Your task to perform on an android device: manage bookmarks in the chrome app Image 0: 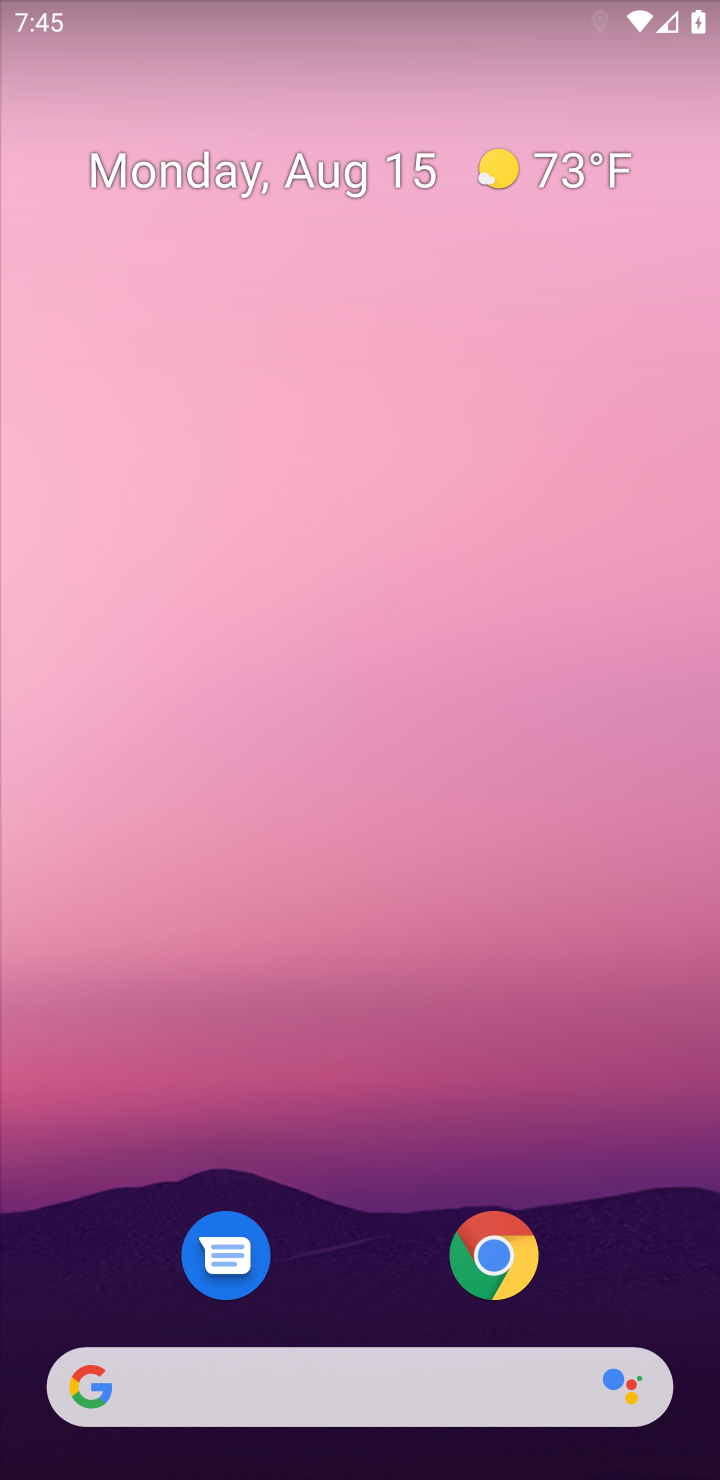
Step 0: drag from (366, 1291) to (392, 95)
Your task to perform on an android device: manage bookmarks in the chrome app Image 1: 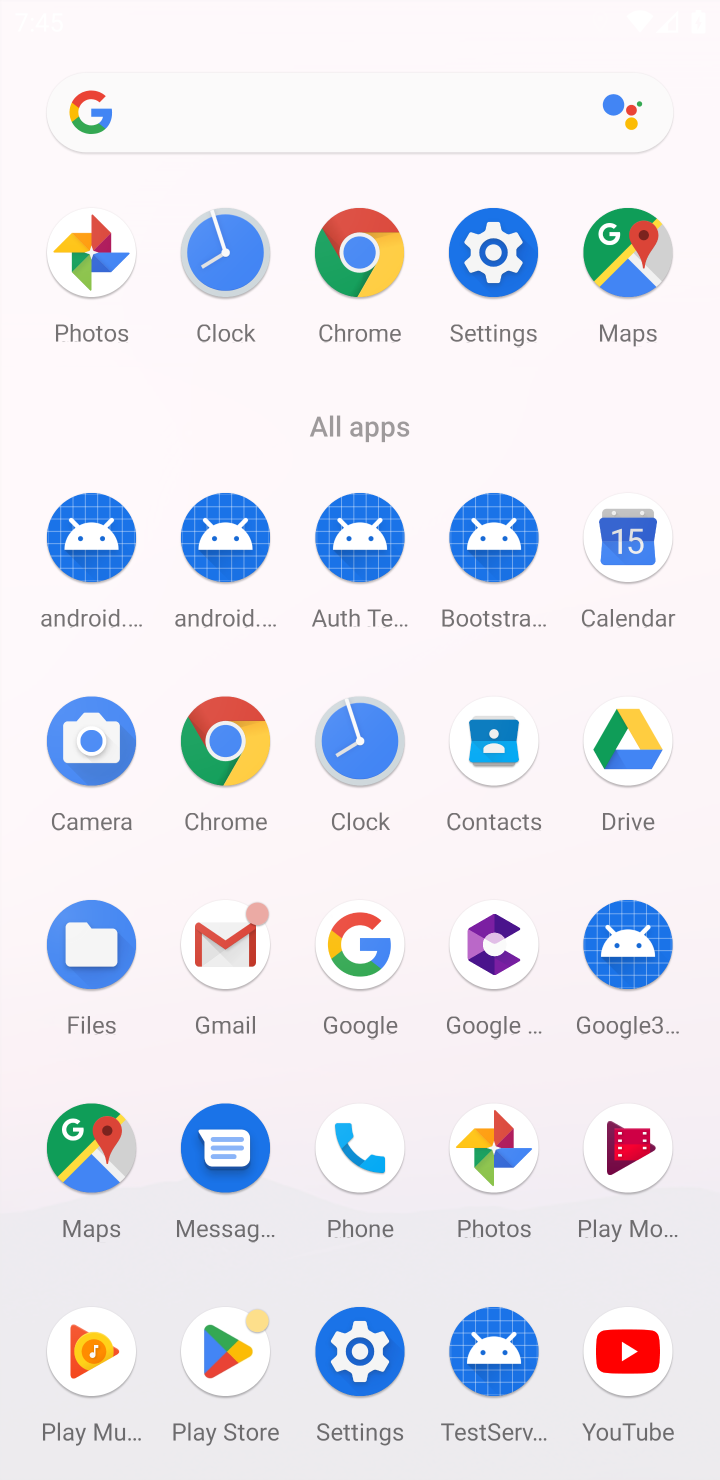
Step 1: click (360, 243)
Your task to perform on an android device: manage bookmarks in the chrome app Image 2: 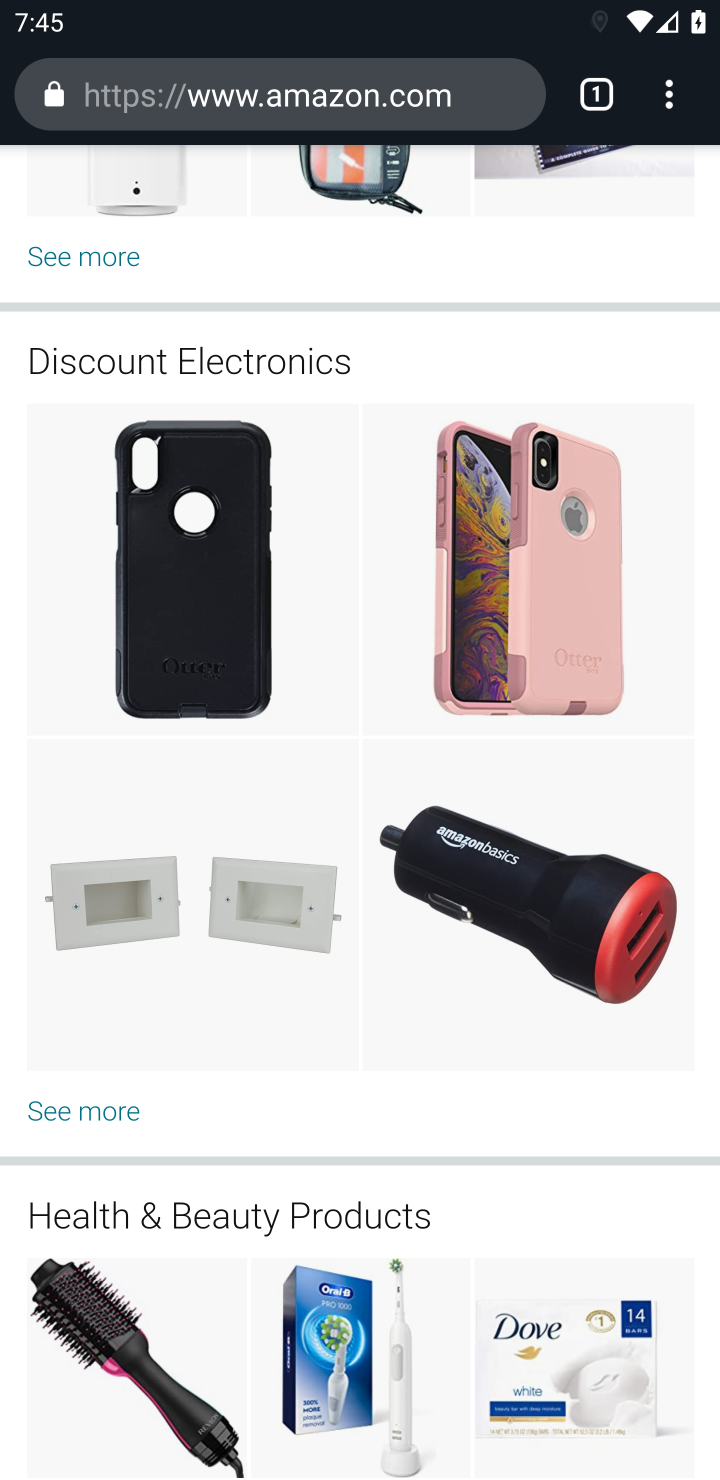
Step 2: click (664, 95)
Your task to perform on an android device: manage bookmarks in the chrome app Image 3: 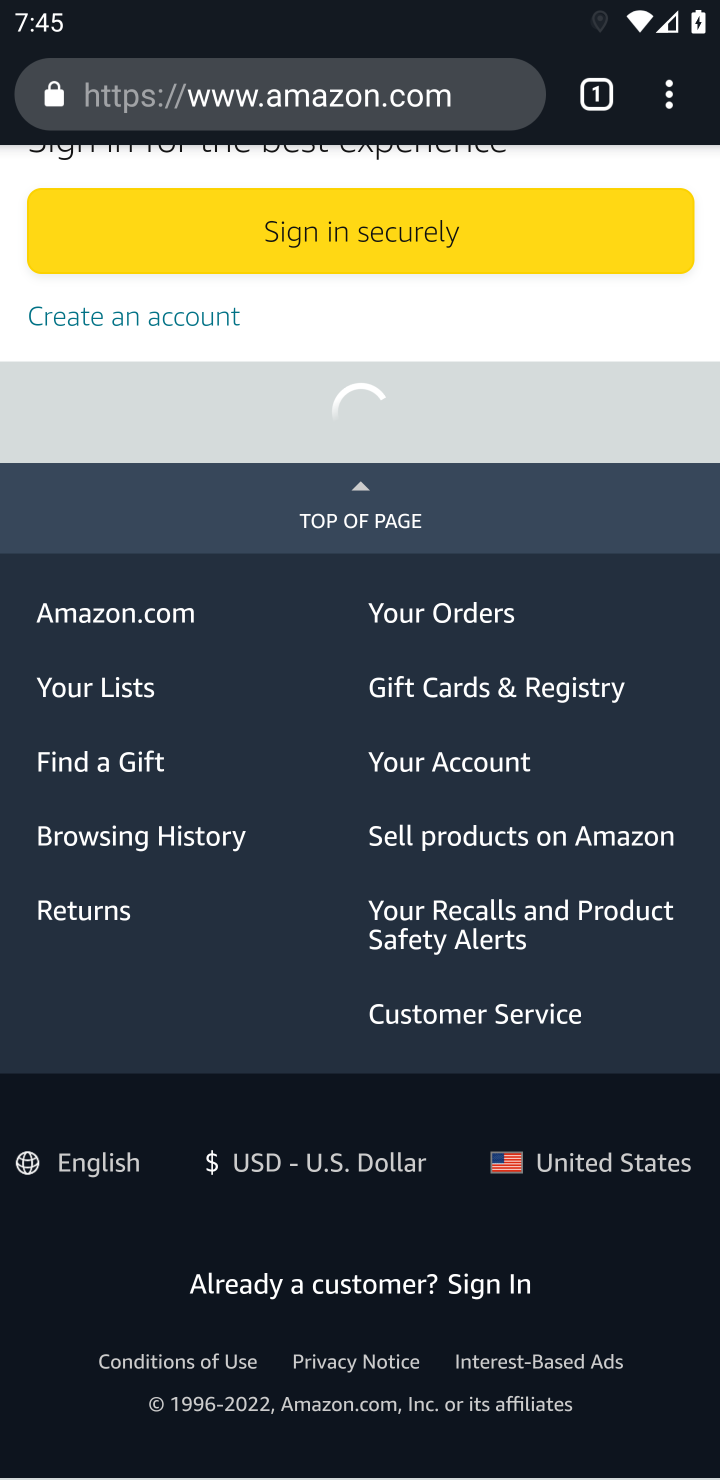
Step 3: click (664, 109)
Your task to perform on an android device: manage bookmarks in the chrome app Image 4: 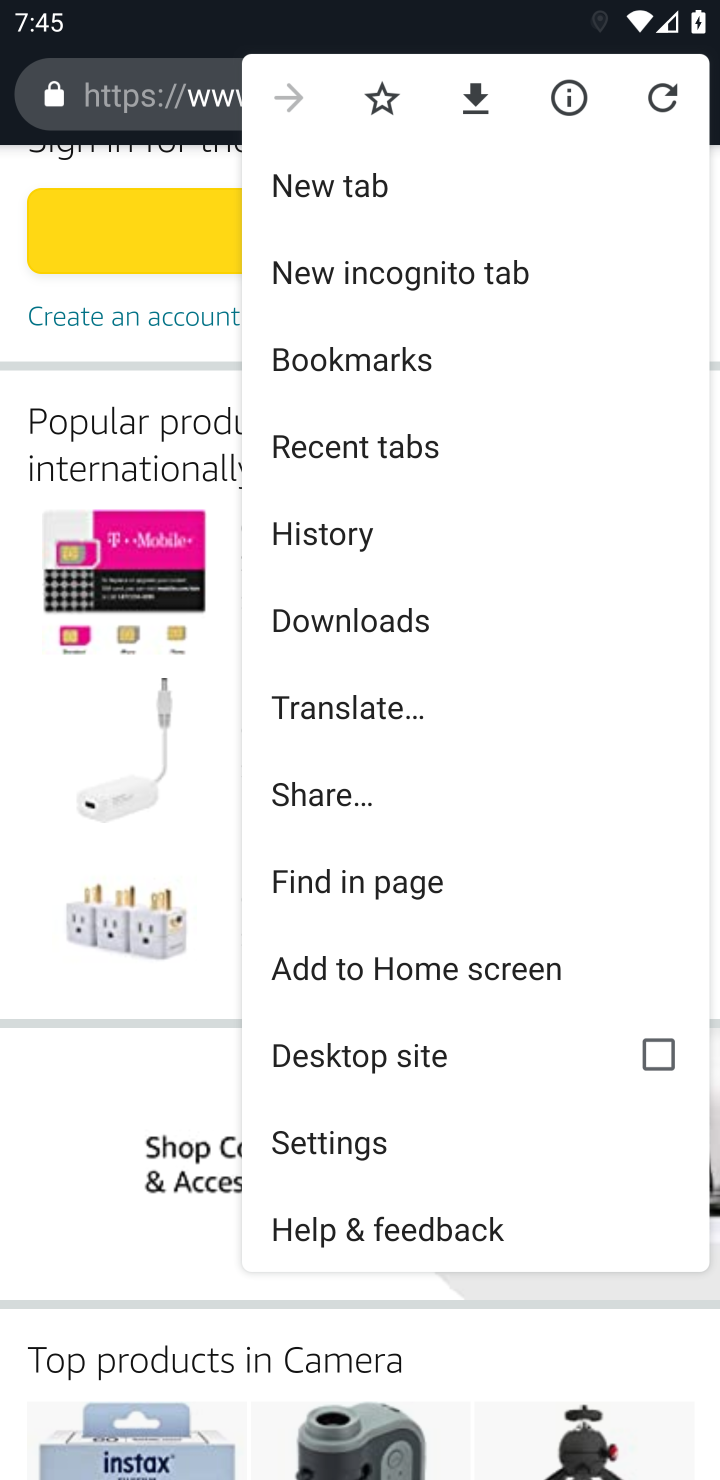
Step 4: click (458, 349)
Your task to perform on an android device: manage bookmarks in the chrome app Image 5: 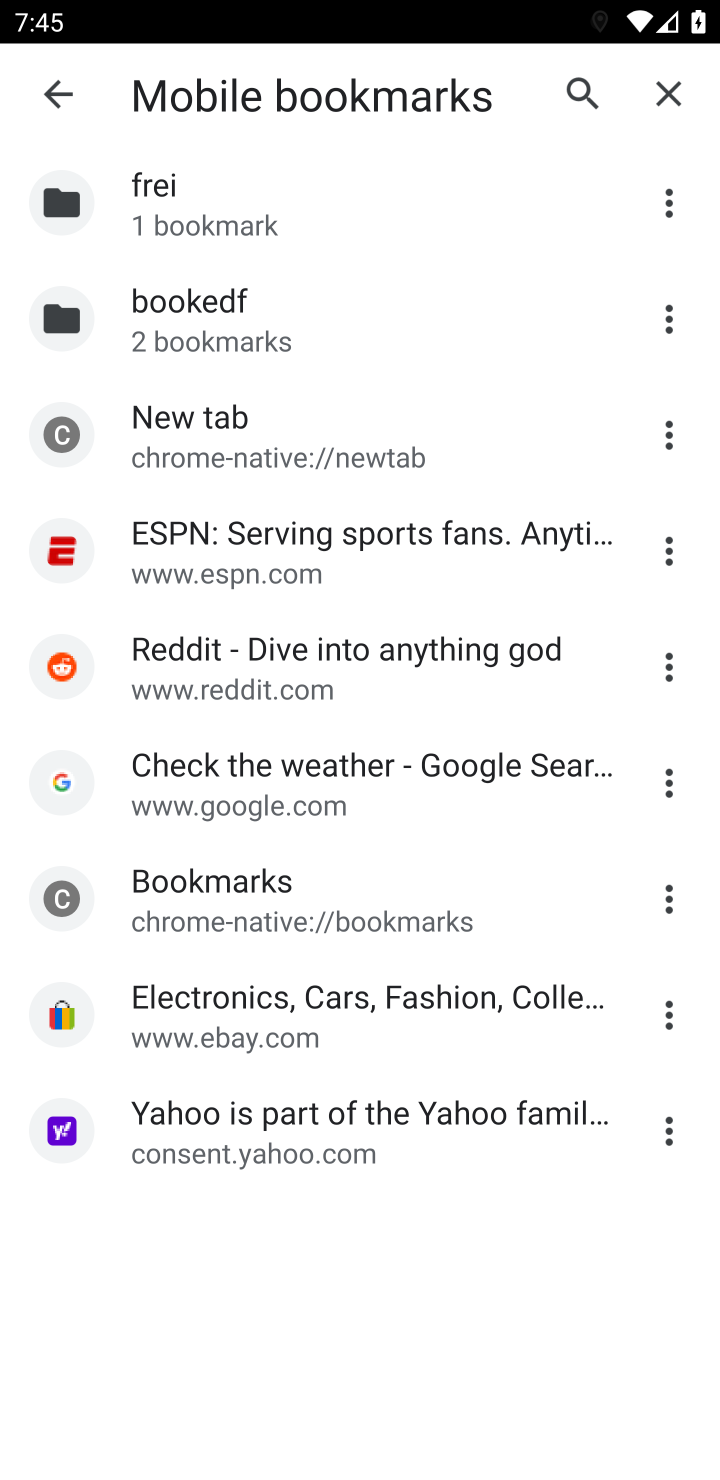
Step 5: click (668, 659)
Your task to perform on an android device: manage bookmarks in the chrome app Image 6: 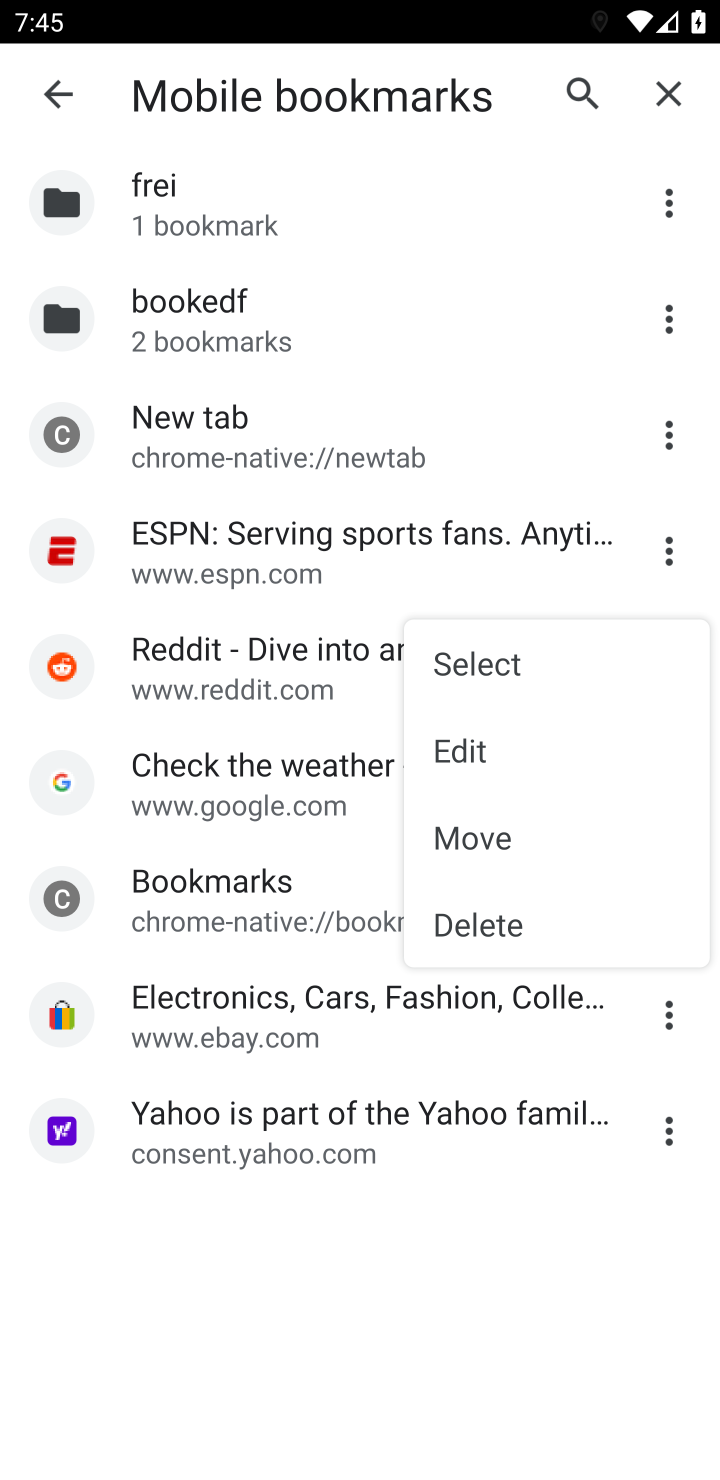
Step 6: click (503, 912)
Your task to perform on an android device: manage bookmarks in the chrome app Image 7: 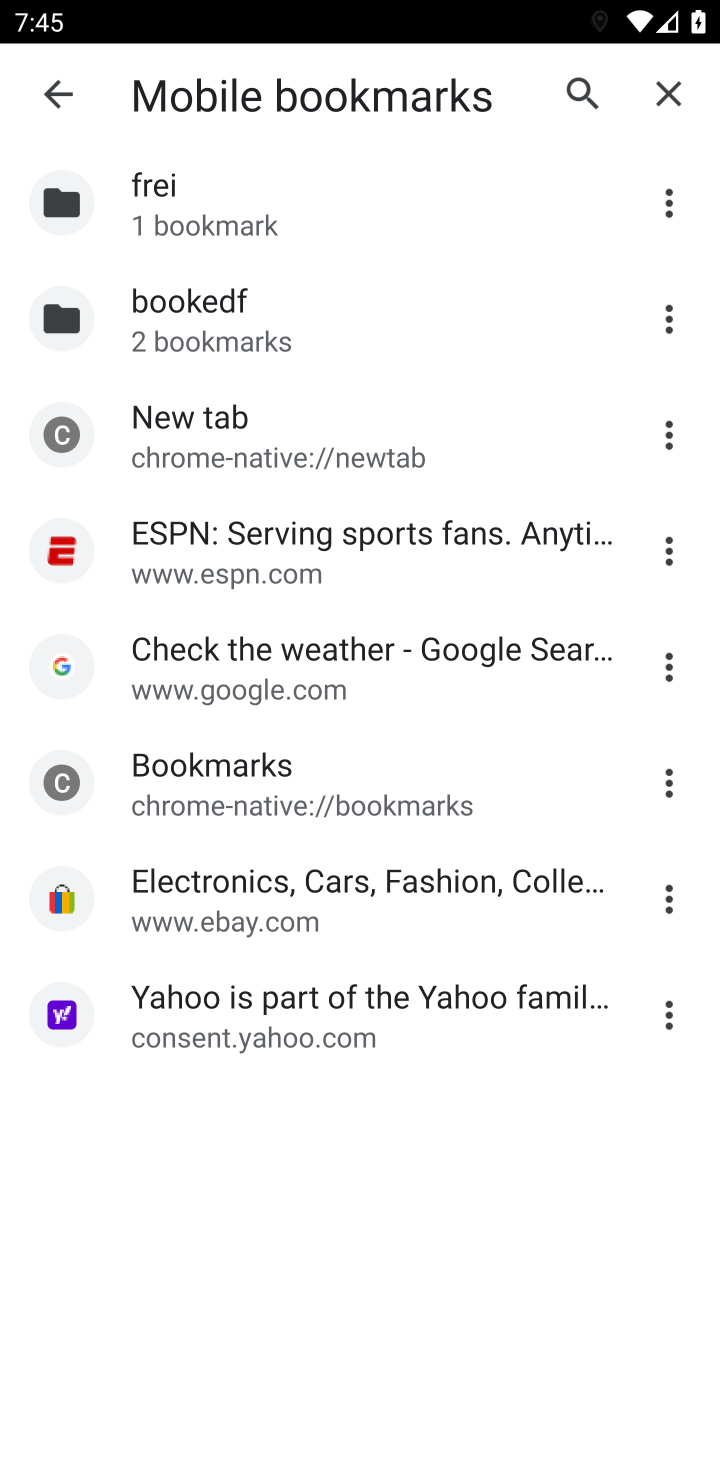
Step 7: task complete